Your task to perform on an android device: open app "Truecaller" (install if not already installed), go to login, and select forgot password Image 0: 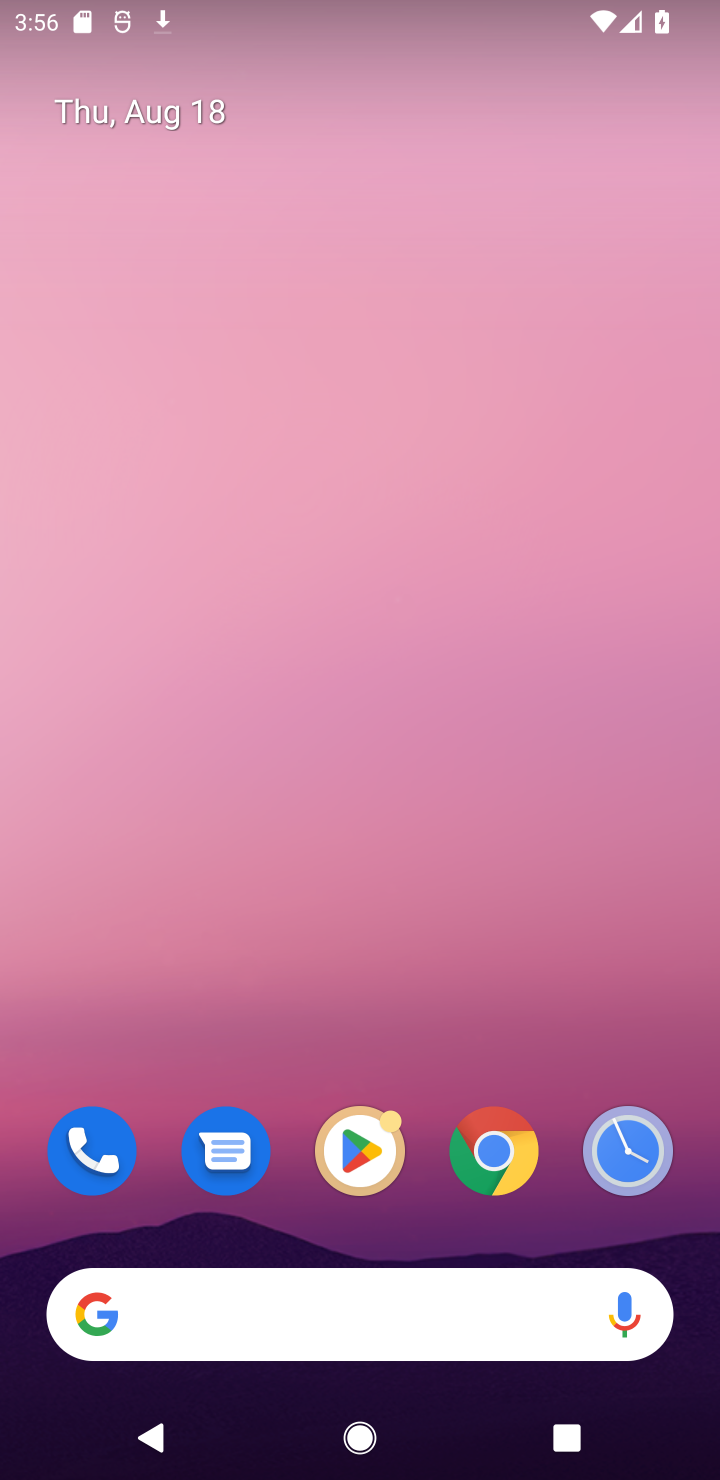
Step 0: click (344, 1154)
Your task to perform on an android device: open app "Truecaller" (install if not already installed), go to login, and select forgot password Image 1: 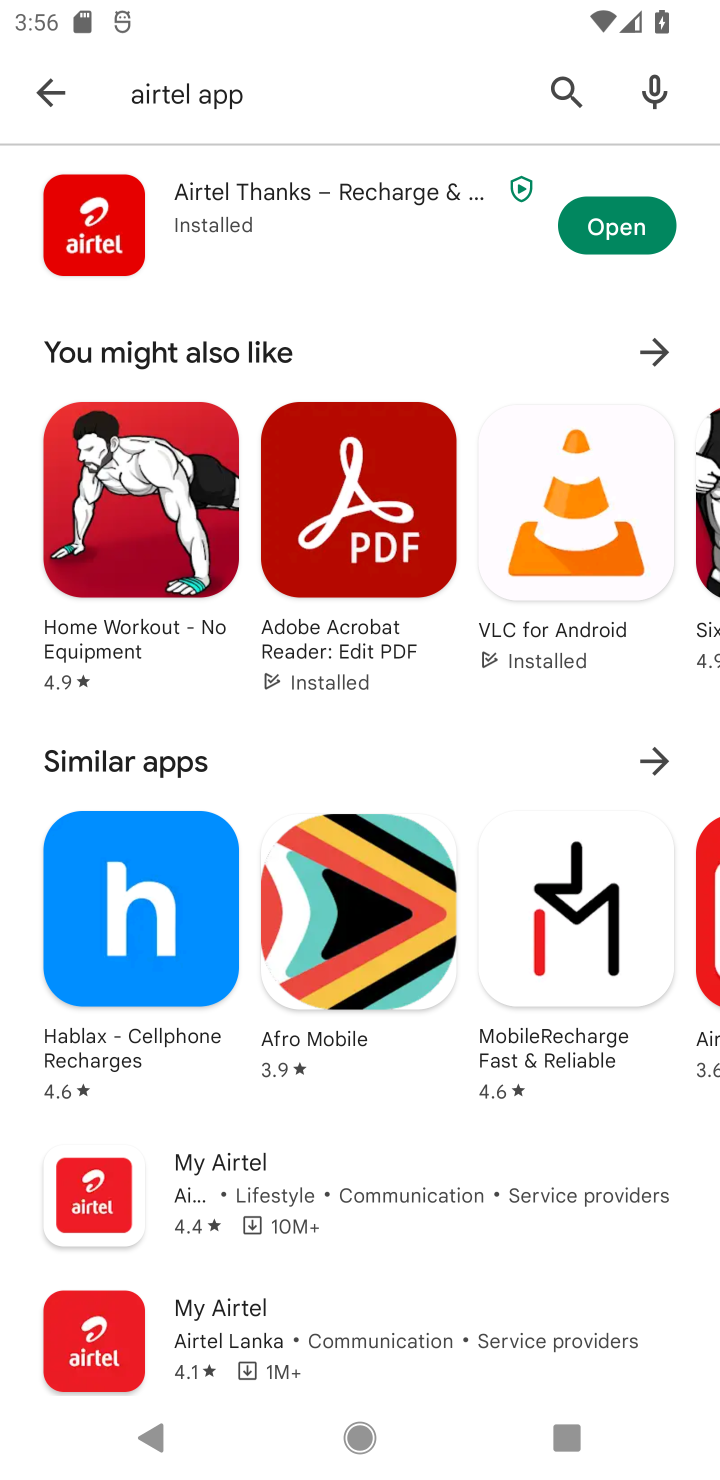
Step 1: click (560, 100)
Your task to perform on an android device: open app "Truecaller" (install if not already installed), go to login, and select forgot password Image 2: 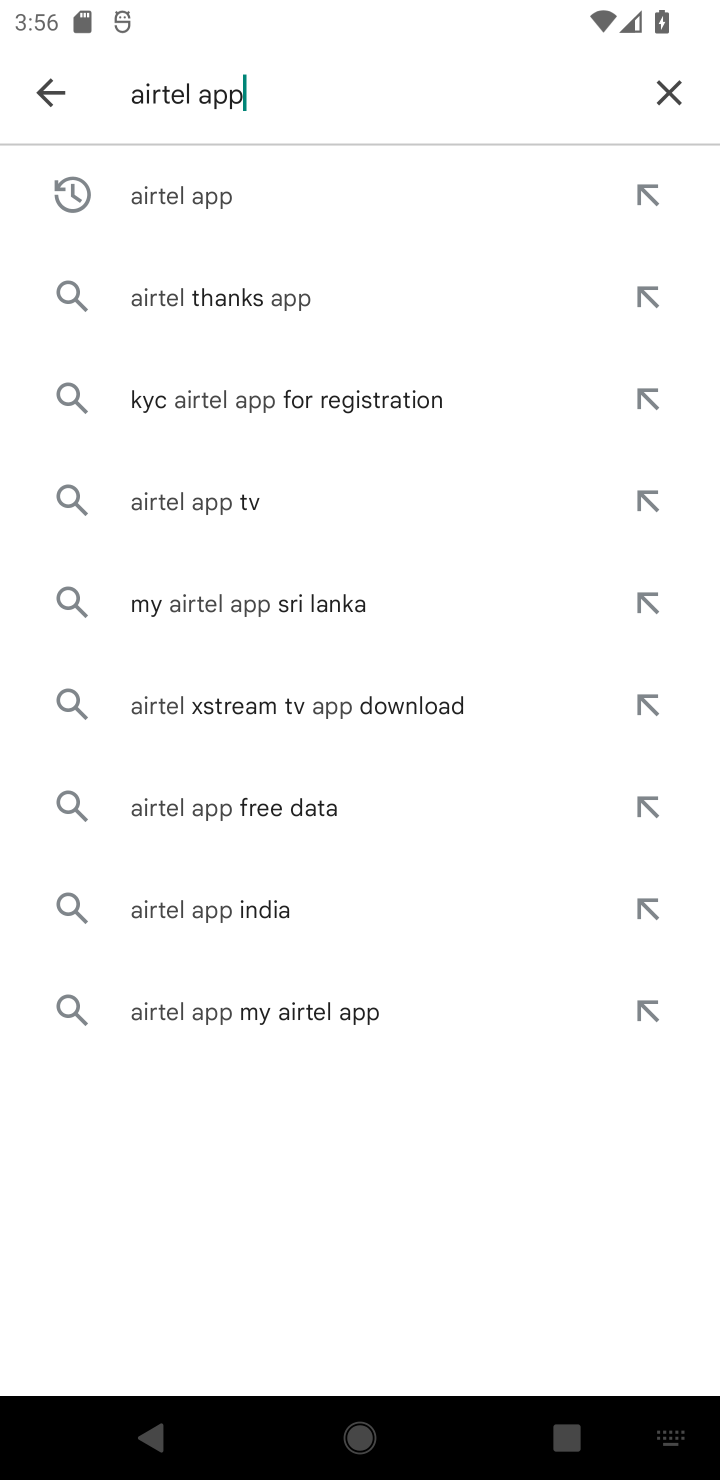
Step 2: click (646, 103)
Your task to perform on an android device: open app "Truecaller" (install if not already installed), go to login, and select forgot password Image 3: 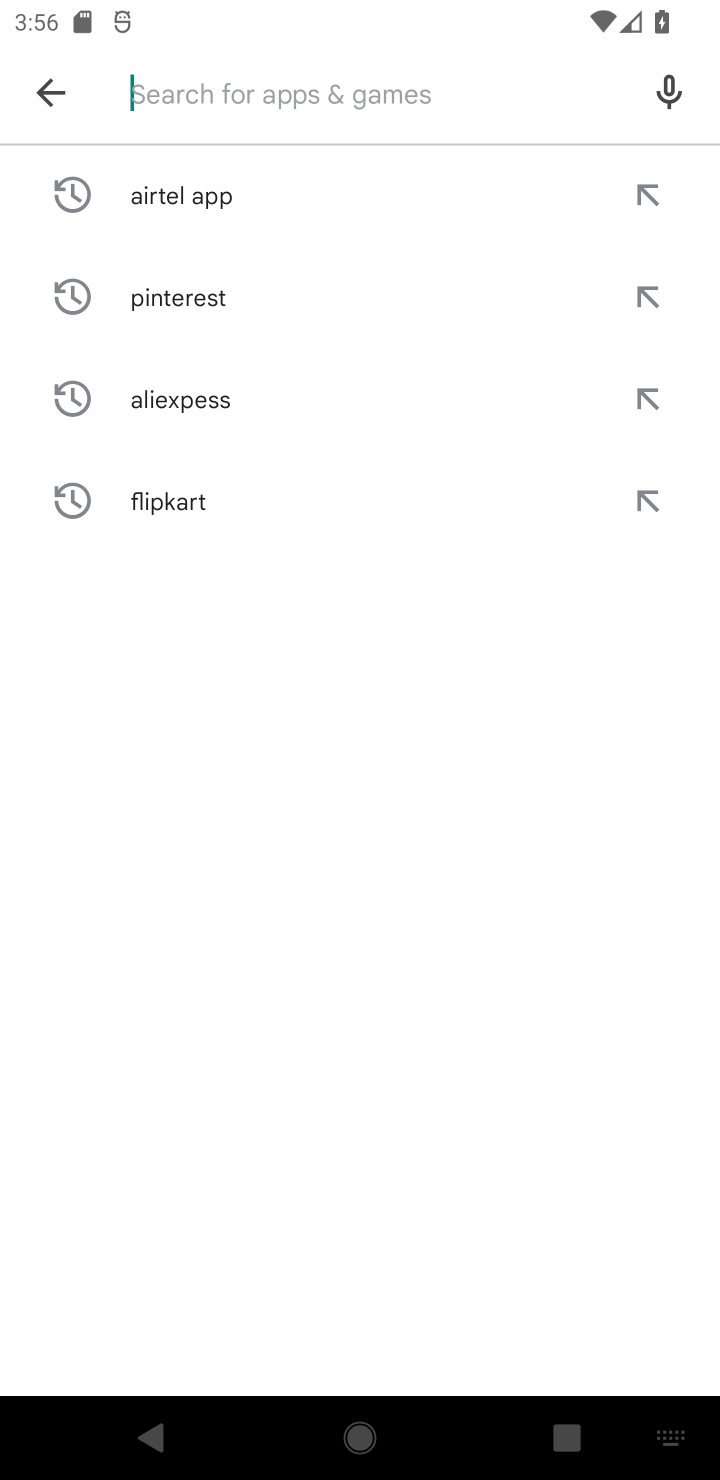
Step 3: type "truecaller"
Your task to perform on an android device: open app "Truecaller" (install if not already installed), go to login, and select forgot password Image 4: 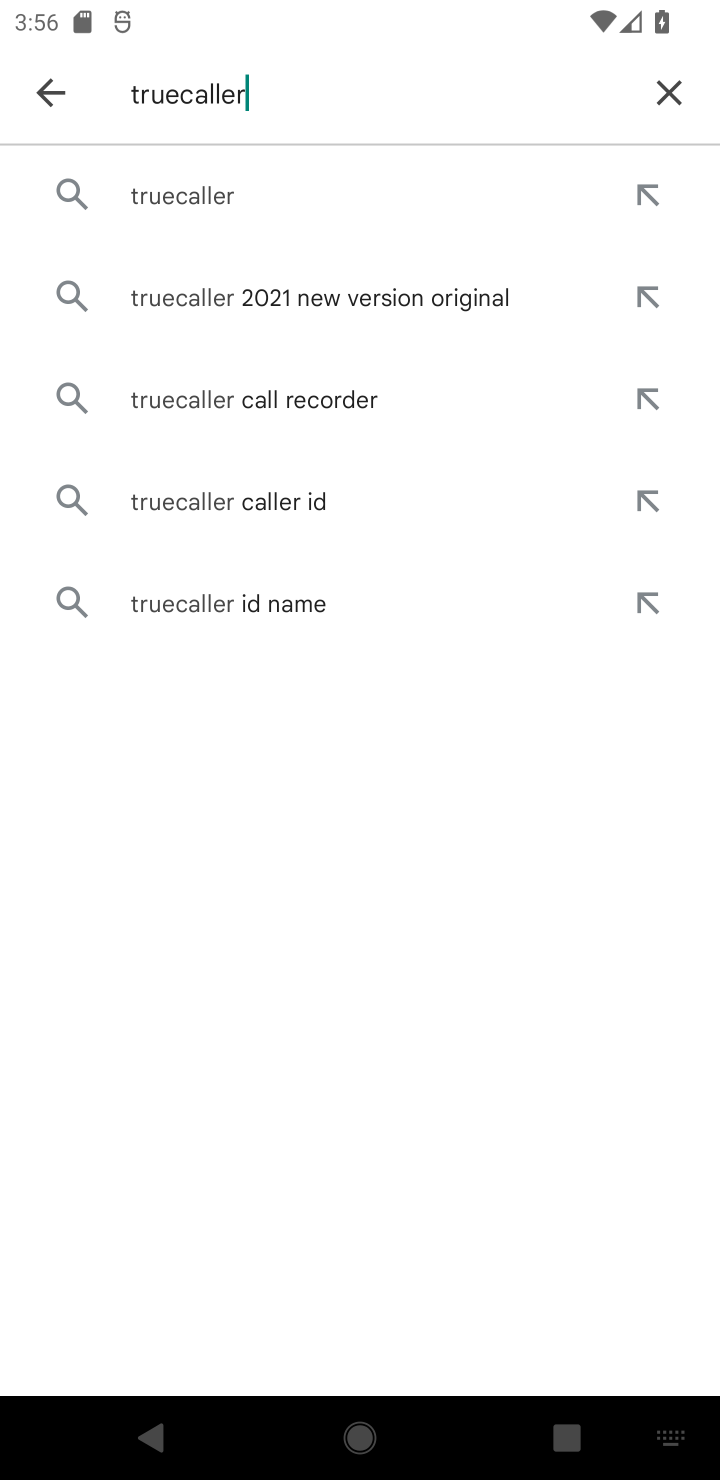
Step 4: click (217, 205)
Your task to perform on an android device: open app "Truecaller" (install if not already installed), go to login, and select forgot password Image 5: 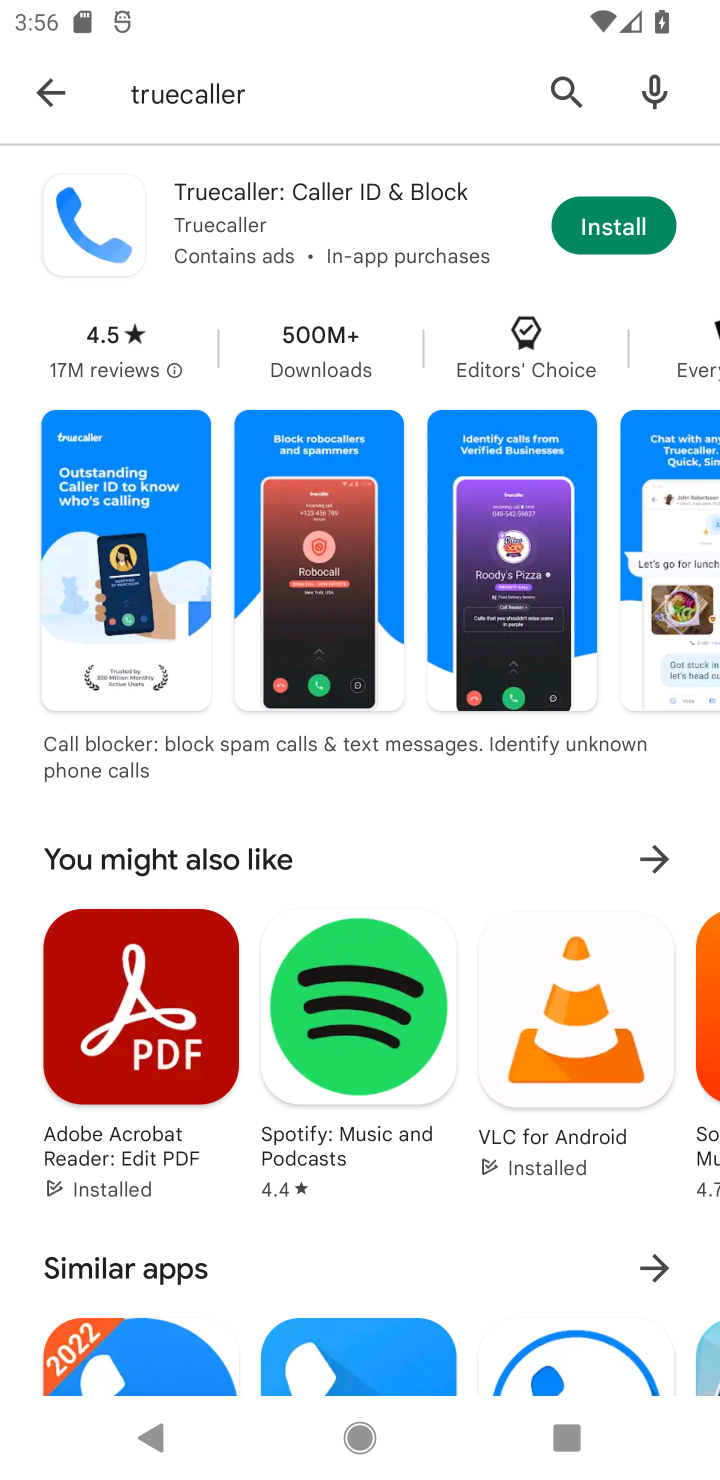
Step 5: click (591, 248)
Your task to perform on an android device: open app "Truecaller" (install if not already installed), go to login, and select forgot password Image 6: 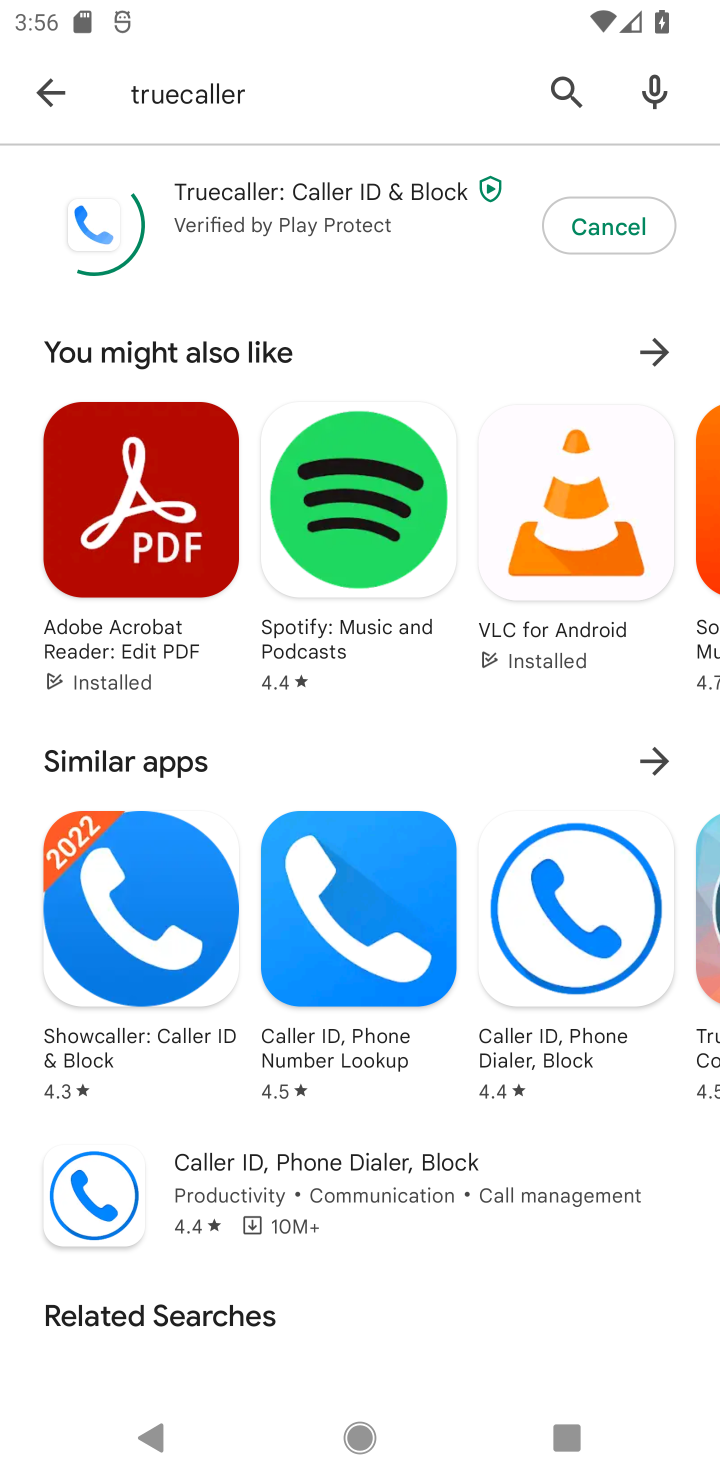
Step 6: task complete